Your task to perform on an android device: change the clock style Image 0: 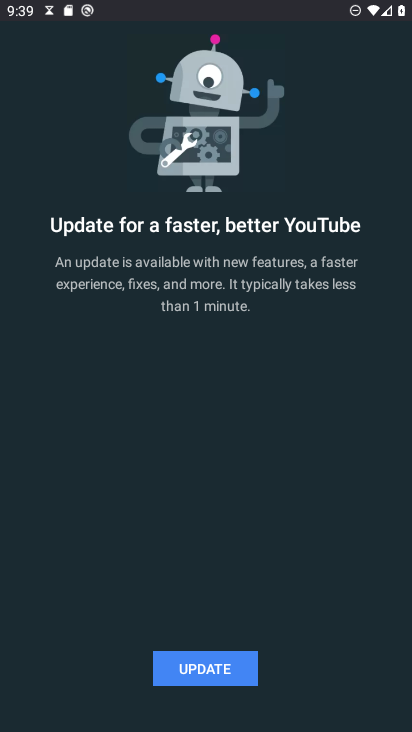
Step 0: press home button
Your task to perform on an android device: change the clock style Image 1: 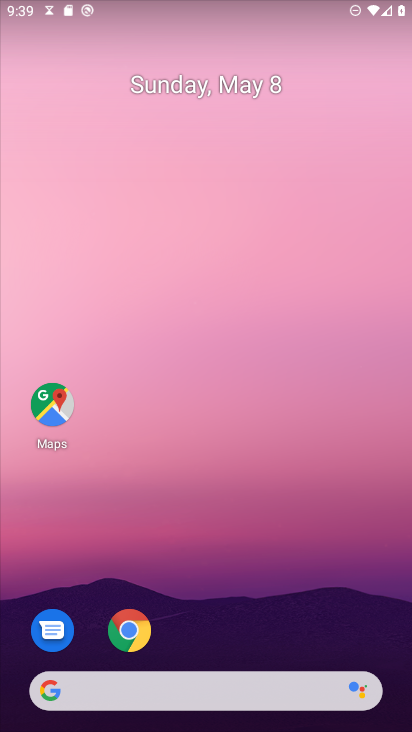
Step 1: drag from (152, 699) to (400, 88)
Your task to perform on an android device: change the clock style Image 2: 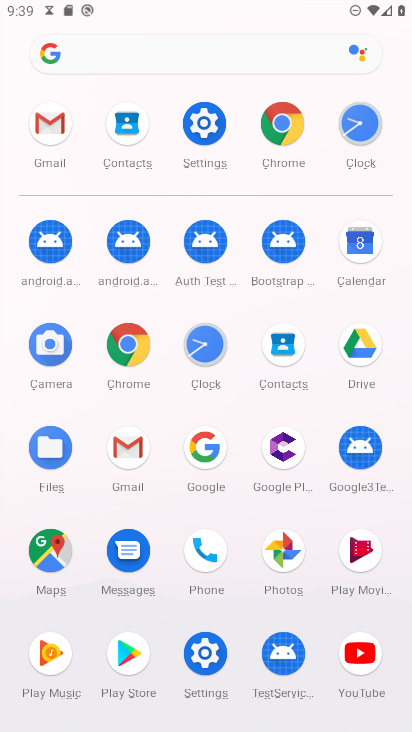
Step 2: click (205, 357)
Your task to perform on an android device: change the clock style Image 3: 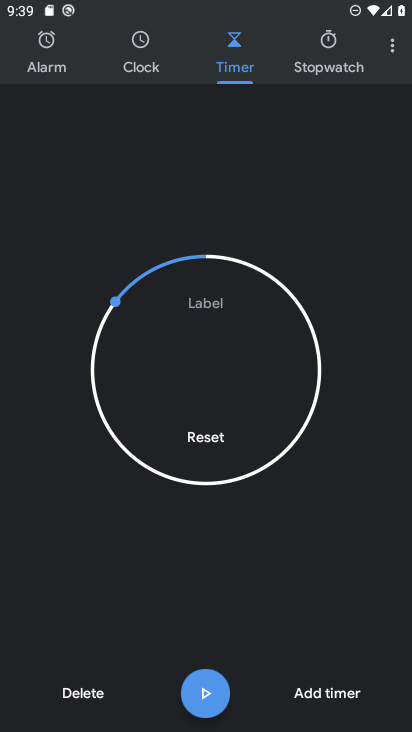
Step 3: click (393, 52)
Your task to perform on an android device: change the clock style Image 4: 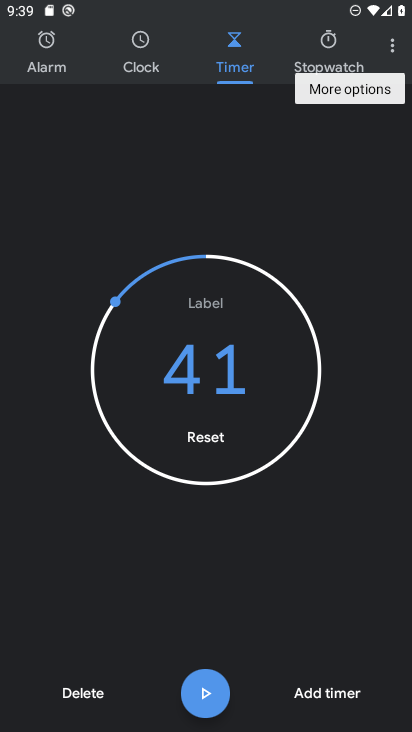
Step 4: click (393, 45)
Your task to perform on an android device: change the clock style Image 5: 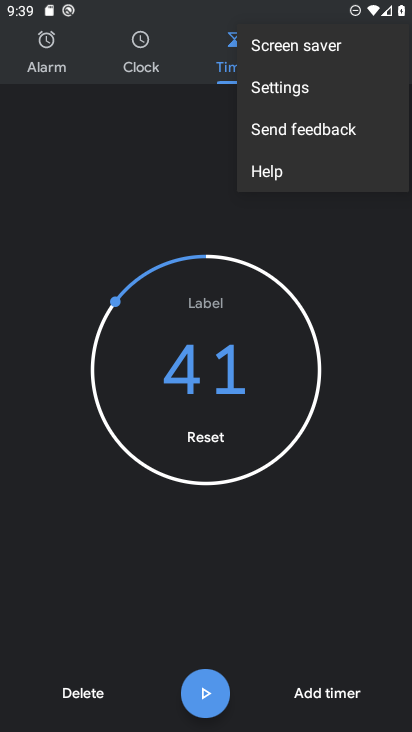
Step 5: click (314, 90)
Your task to perform on an android device: change the clock style Image 6: 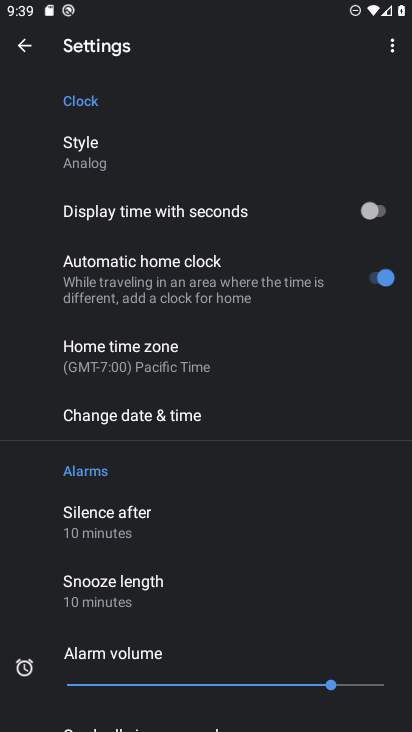
Step 6: click (97, 169)
Your task to perform on an android device: change the clock style Image 7: 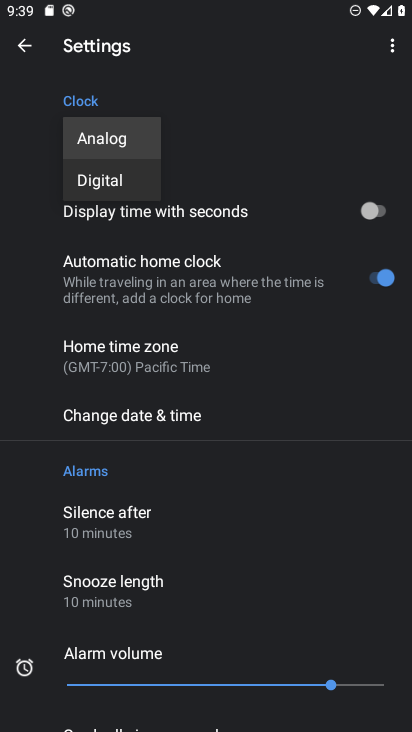
Step 7: click (110, 190)
Your task to perform on an android device: change the clock style Image 8: 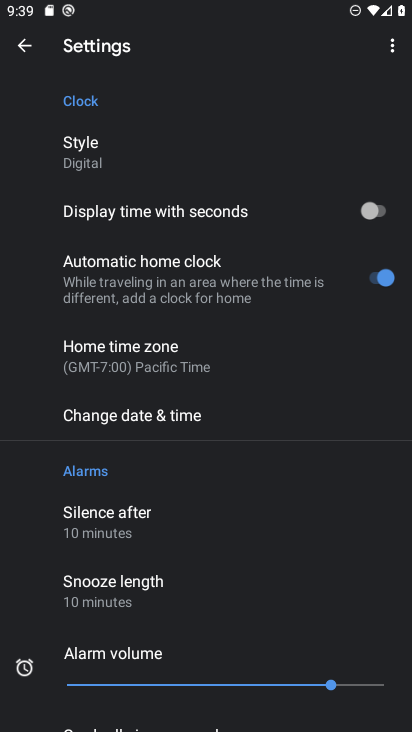
Step 8: task complete